Your task to perform on an android device: make emails show in primary in the gmail app Image 0: 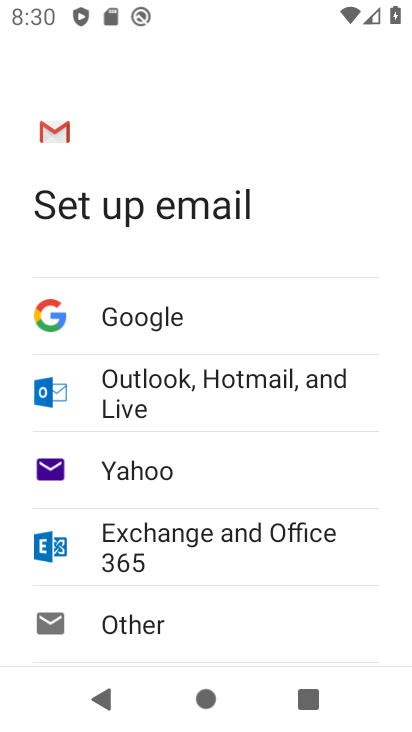
Step 0: press home button
Your task to perform on an android device: make emails show in primary in the gmail app Image 1: 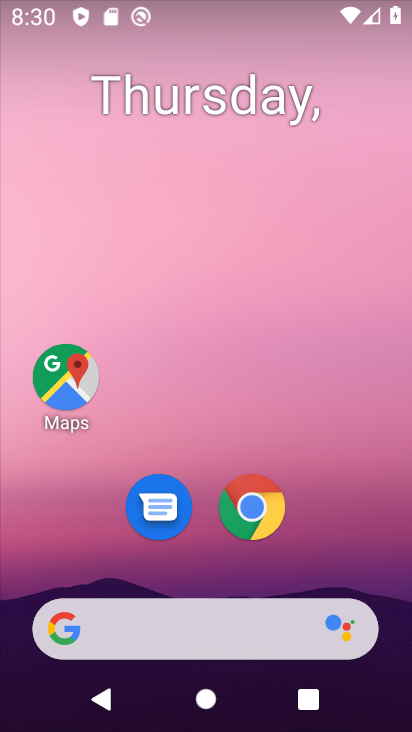
Step 1: drag from (183, 536) to (330, 2)
Your task to perform on an android device: make emails show in primary in the gmail app Image 2: 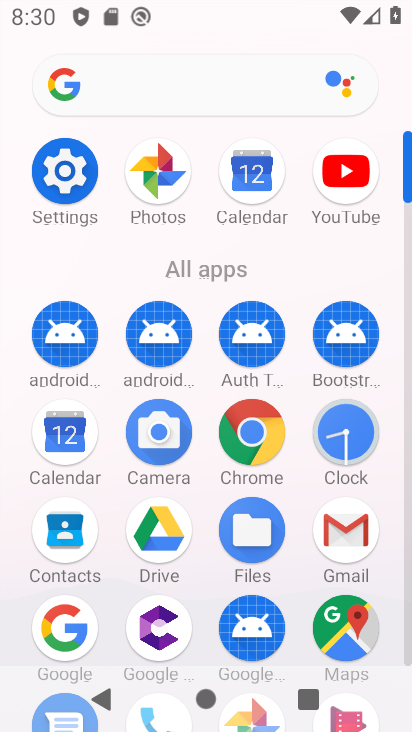
Step 2: drag from (203, 575) to (205, 402)
Your task to perform on an android device: make emails show in primary in the gmail app Image 3: 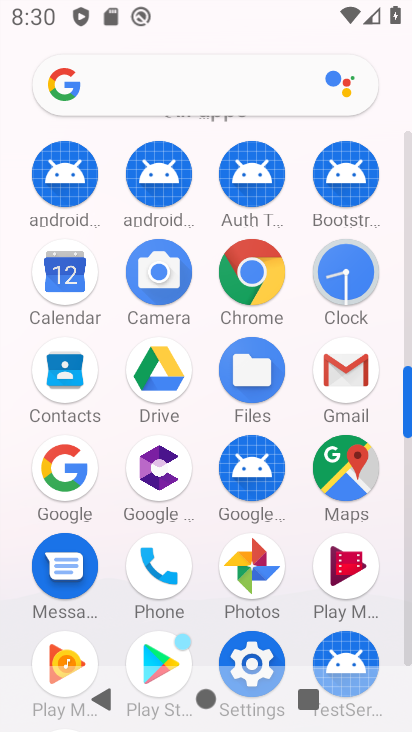
Step 3: click (340, 373)
Your task to perform on an android device: make emails show in primary in the gmail app Image 4: 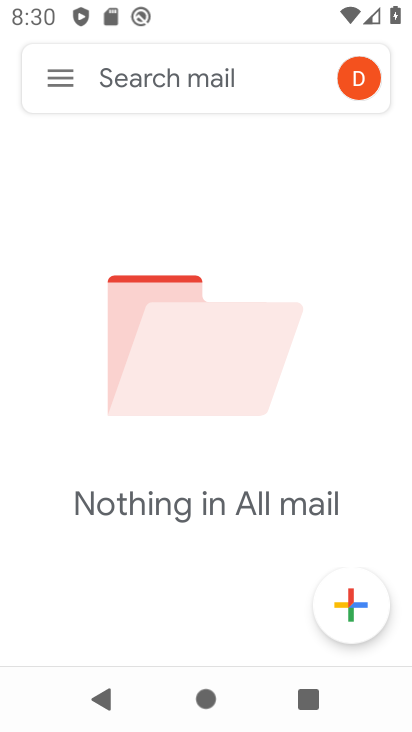
Step 4: click (68, 87)
Your task to perform on an android device: make emails show in primary in the gmail app Image 5: 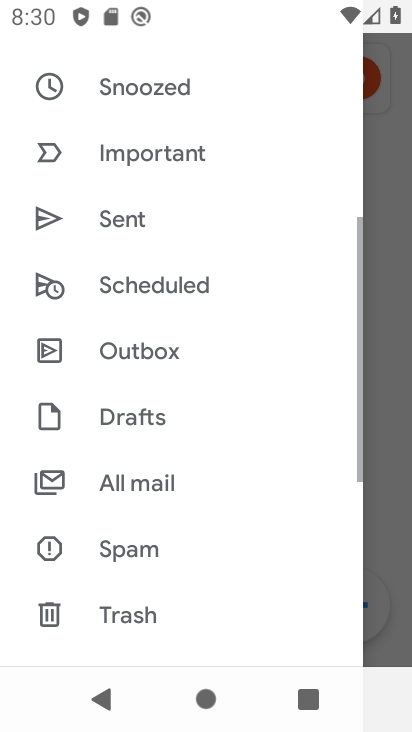
Step 5: drag from (135, 610) to (190, 187)
Your task to perform on an android device: make emails show in primary in the gmail app Image 6: 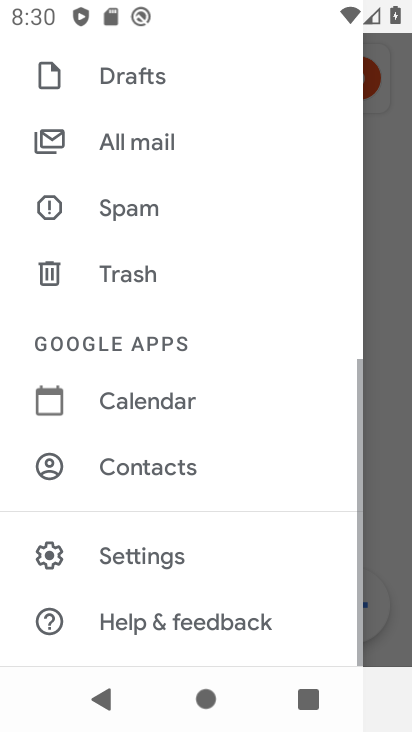
Step 6: click (138, 565)
Your task to perform on an android device: make emails show in primary in the gmail app Image 7: 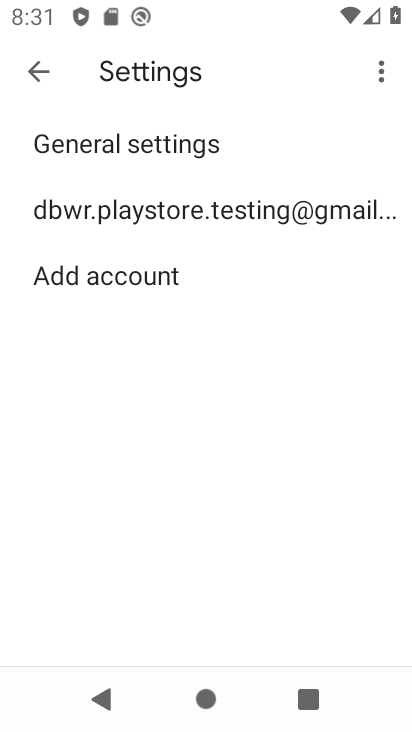
Step 7: click (155, 215)
Your task to perform on an android device: make emails show in primary in the gmail app Image 8: 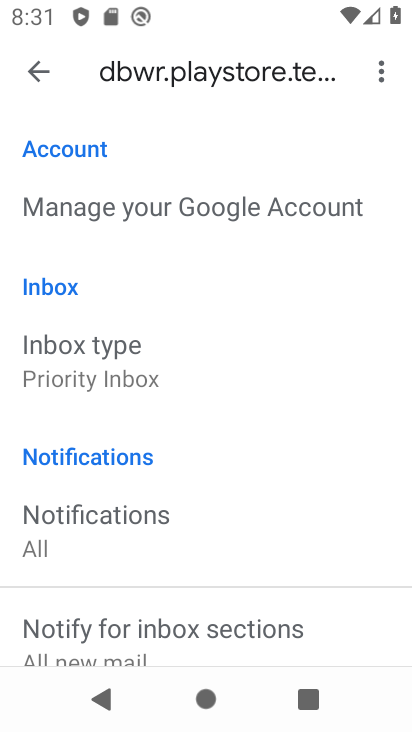
Step 8: click (101, 356)
Your task to perform on an android device: make emails show in primary in the gmail app Image 9: 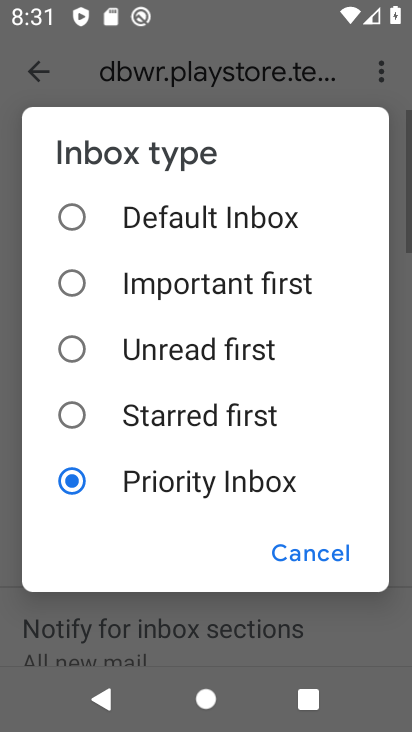
Step 9: click (135, 227)
Your task to perform on an android device: make emails show in primary in the gmail app Image 10: 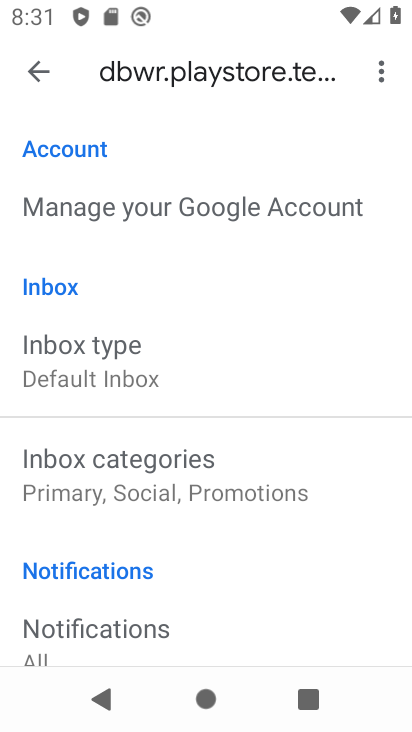
Step 10: click (133, 472)
Your task to perform on an android device: make emails show in primary in the gmail app Image 11: 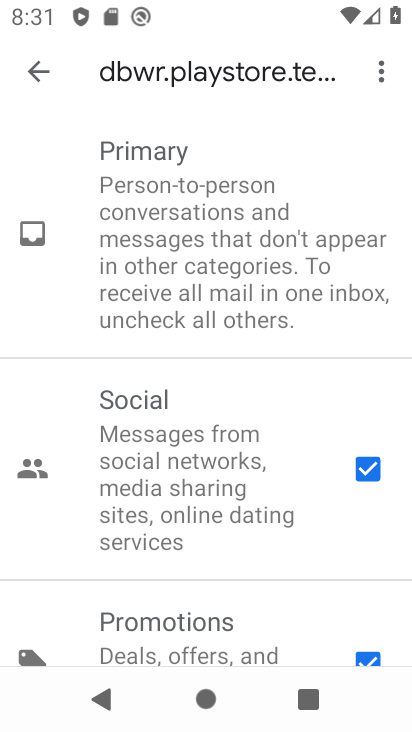
Step 11: click (329, 459)
Your task to perform on an android device: make emails show in primary in the gmail app Image 12: 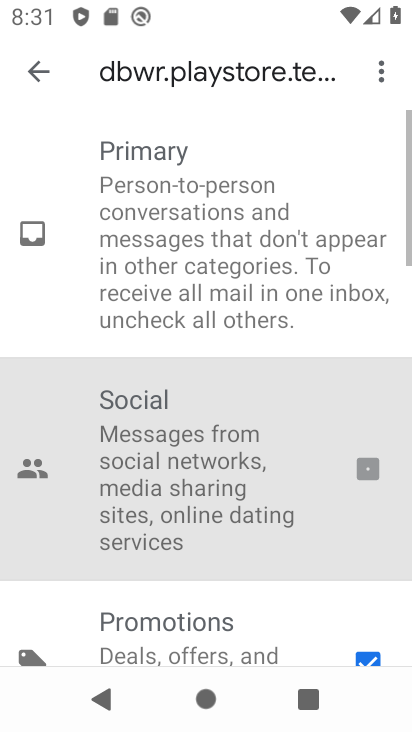
Step 12: drag from (199, 528) to (261, 202)
Your task to perform on an android device: make emails show in primary in the gmail app Image 13: 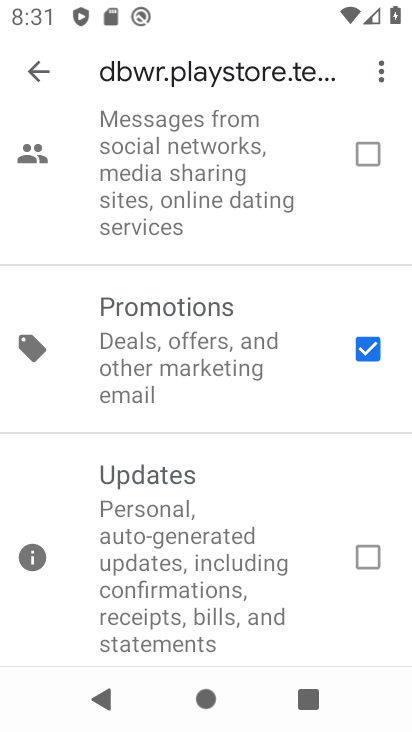
Step 13: click (352, 352)
Your task to perform on an android device: make emails show in primary in the gmail app Image 14: 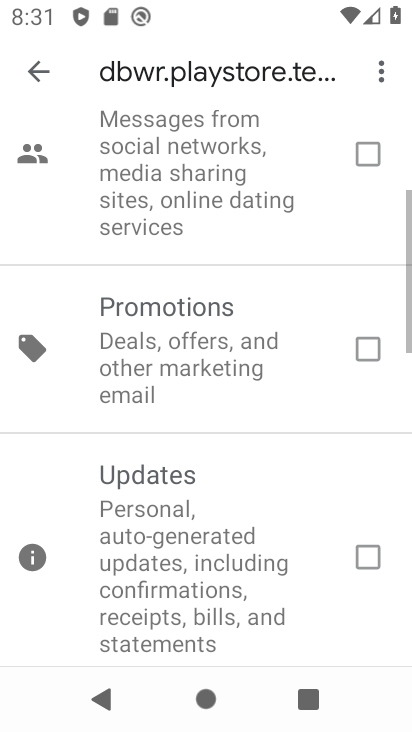
Step 14: task complete